Your task to perform on an android device: turn off airplane mode Image 0: 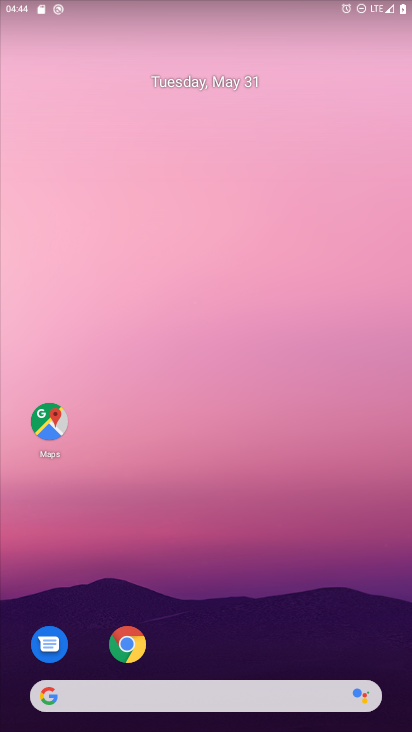
Step 0: drag from (236, 596) to (249, 154)
Your task to perform on an android device: turn off airplane mode Image 1: 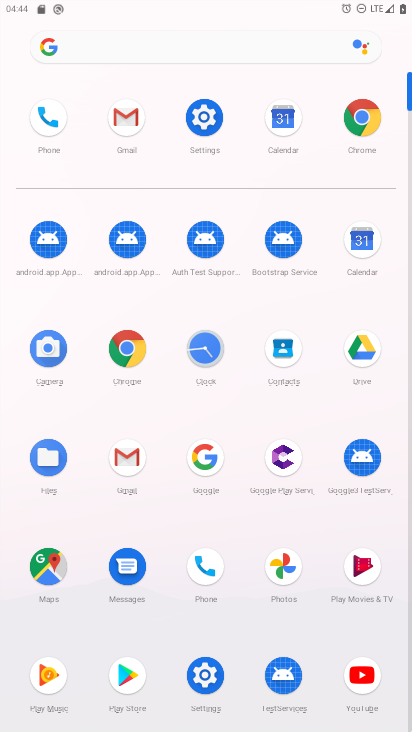
Step 1: click (219, 121)
Your task to perform on an android device: turn off airplane mode Image 2: 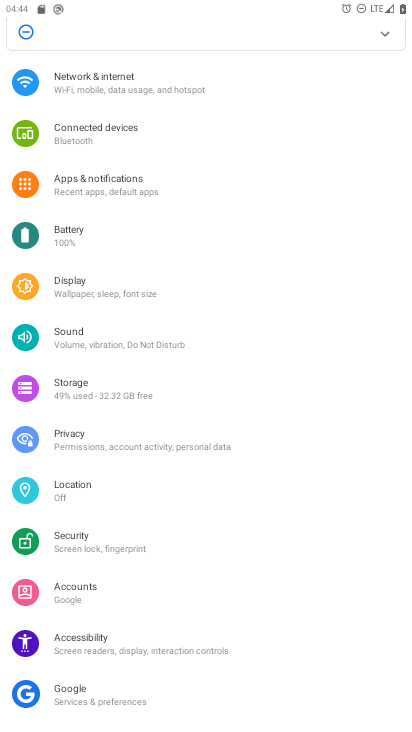
Step 2: drag from (188, 210) to (180, 422)
Your task to perform on an android device: turn off airplane mode Image 3: 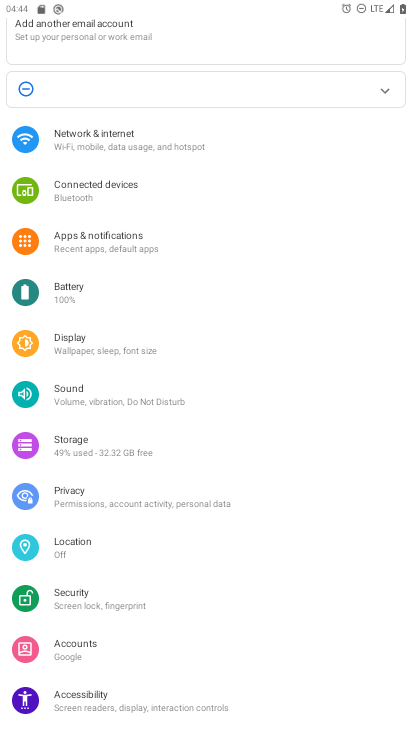
Step 3: click (111, 130)
Your task to perform on an android device: turn off airplane mode Image 4: 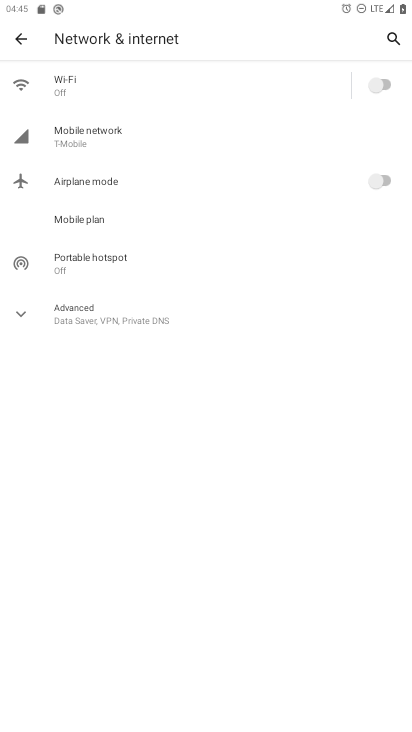
Step 4: task complete